Your task to perform on an android device: Show me the alarms in the clock app Image 0: 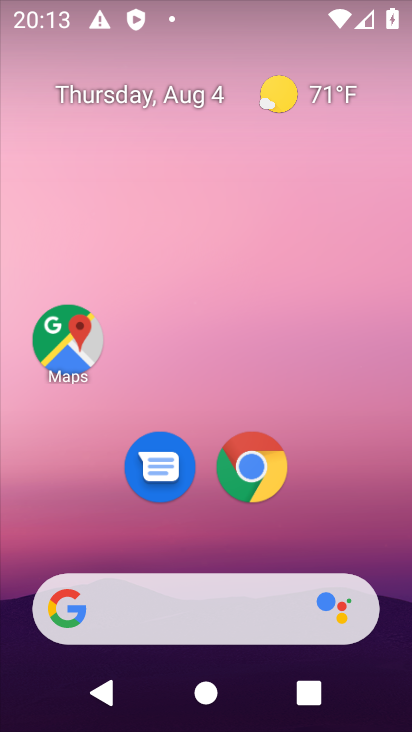
Step 0: press home button
Your task to perform on an android device: Show me the alarms in the clock app Image 1: 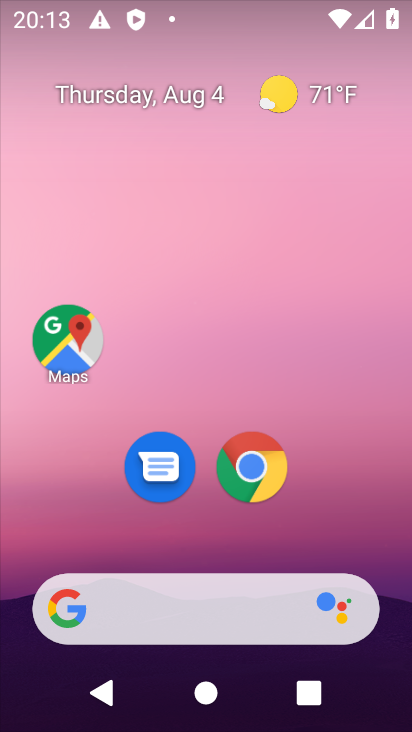
Step 1: drag from (361, 630) to (382, 87)
Your task to perform on an android device: Show me the alarms in the clock app Image 2: 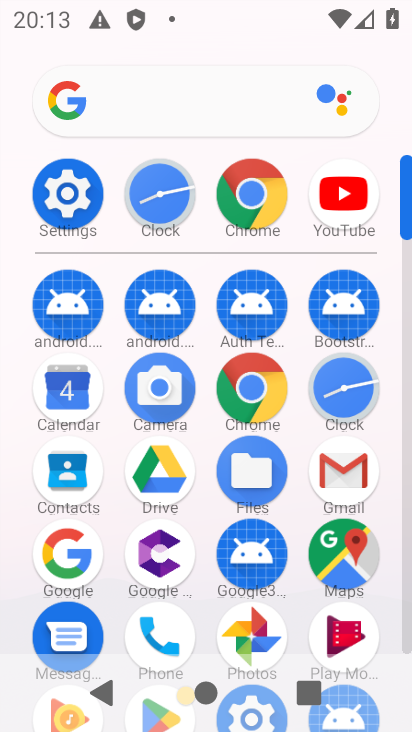
Step 2: click (133, 194)
Your task to perform on an android device: Show me the alarms in the clock app Image 3: 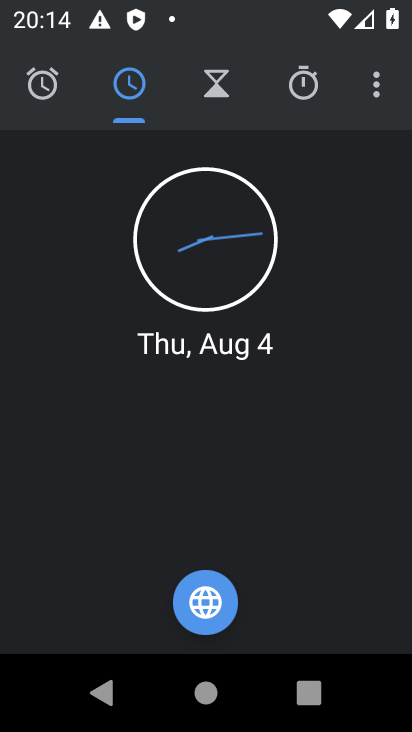
Step 3: click (42, 89)
Your task to perform on an android device: Show me the alarms in the clock app Image 4: 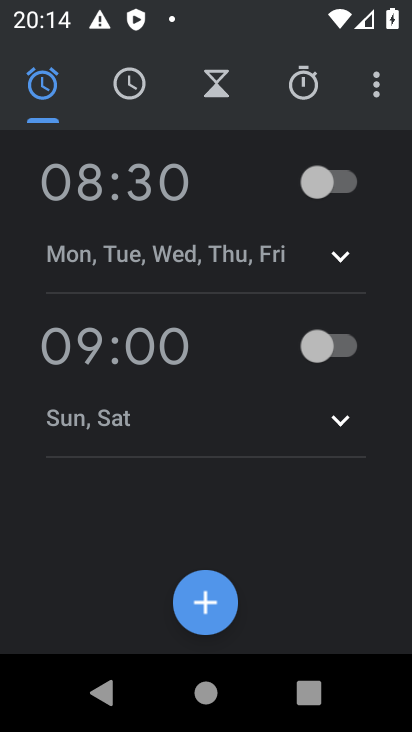
Step 4: task complete